Your task to perform on an android device: visit the assistant section in the google photos Image 0: 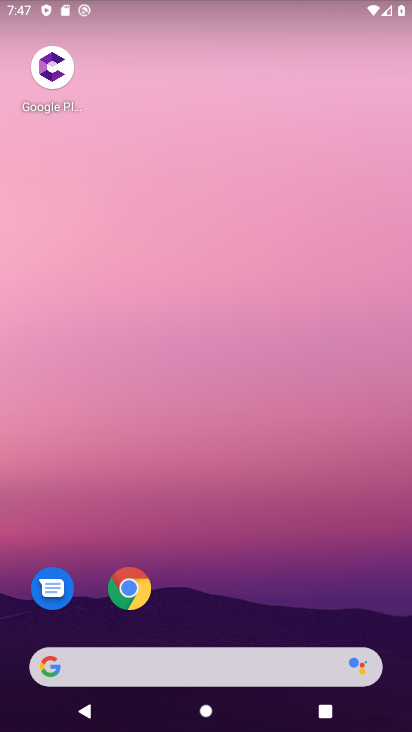
Step 0: drag from (263, 599) to (206, 35)
Your task to perform on an android device: visit the assistant section in the google photos Image 1: 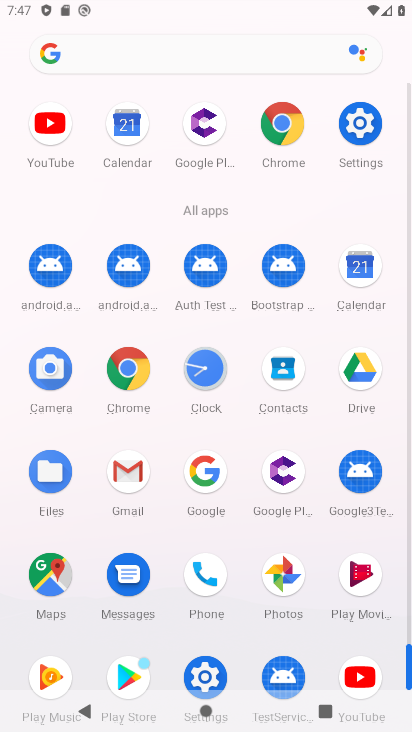
Step 1: click (287, 560)
Your task to perform on an android device: visit the assistant section in the google photos Image 2: 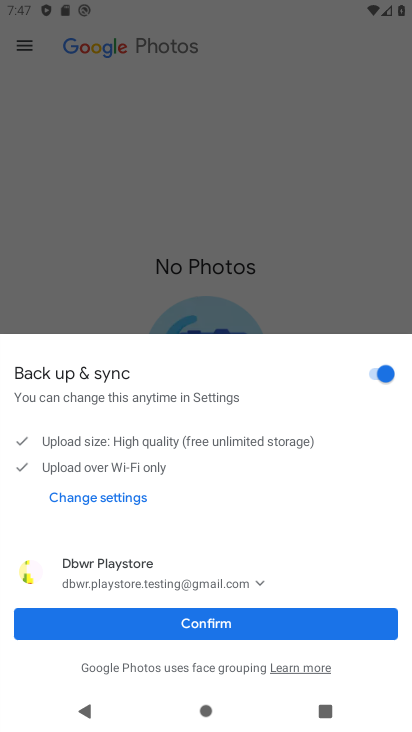
Step 2: click (222, 628)
Your task to perform on an android device: visit the assistant section in the google photos Image 3: 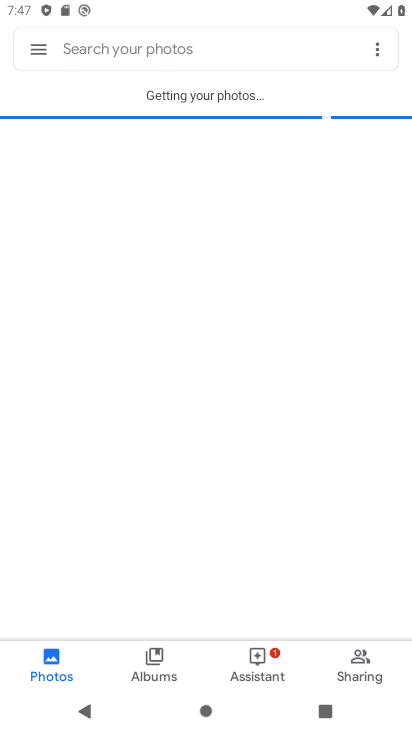
Step 3: click (271, 649)
Your task to perform on an android device: visit the assistant section in the google photos Image 4: 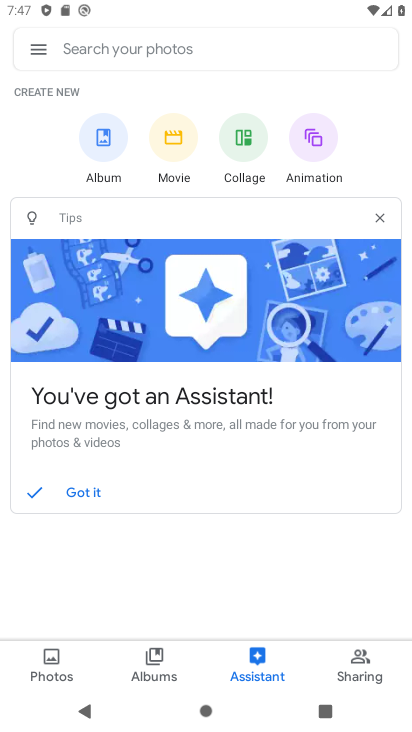
Step 4: task complete